Your task to perform on an android device: find snoozed emails in the gmail app Image 0: 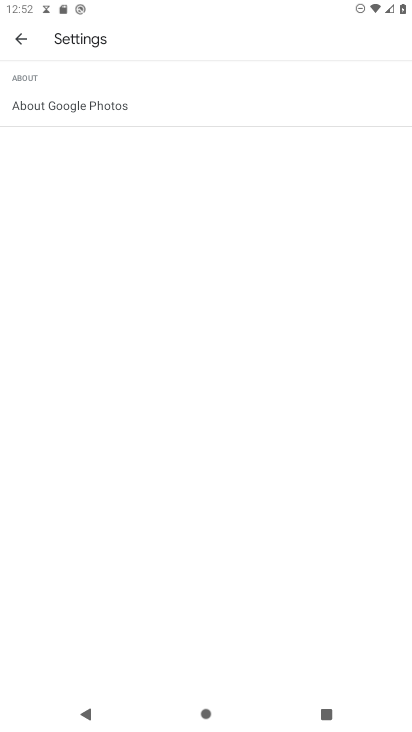
Step 0: press home button
Your task to perform on an android device: find snoozed emails in the gmail app Image 1: 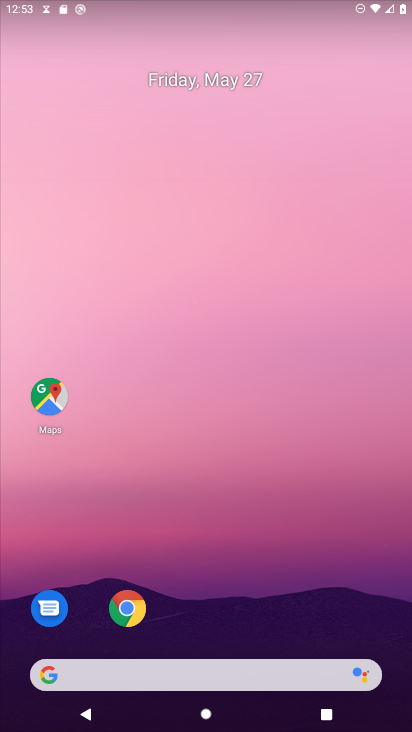
Step 1: drag from (87, 673) to (201, 127)
Your task to perform on an android device: find snoozed emails in the gmail app Image 2: 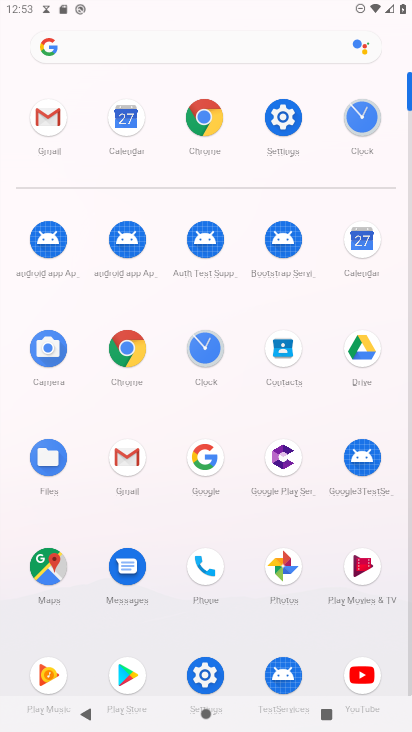
Step 2: click (50, 121)
Your task to perform on an android device: find snoozed emails in the gmail app Image 3: 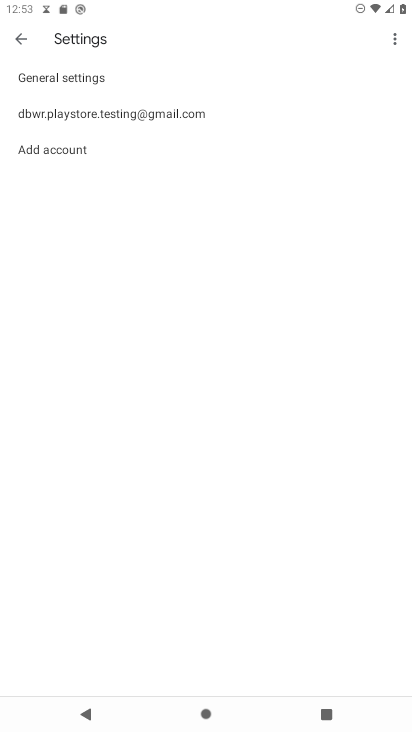
Step 3: click (20, 31)
Your task to perform on an android device: find snoozed emails in the gmail app Image 4: 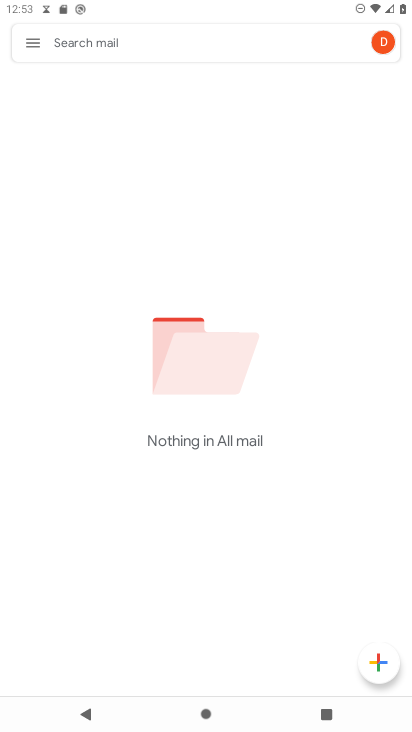
Step 4: click (34, 40)
Your task to perform on an android device: find snoozed emails in the gmail app Image 5: 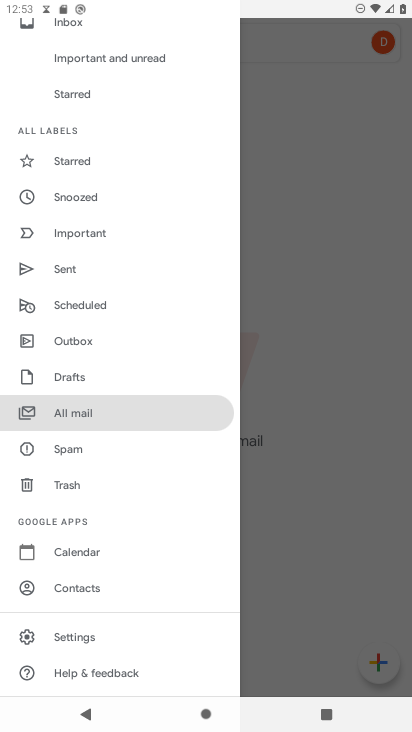
Step 5: click (87, 187)
Your task to perform on an android device: find snoozed emails in the gmail app Image 6: 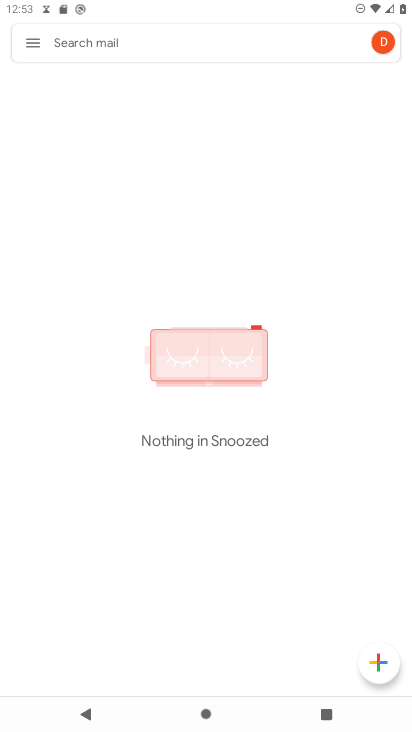
Step 6: task complete